Your task to perform on an android device: all mails in gmail Image 0: 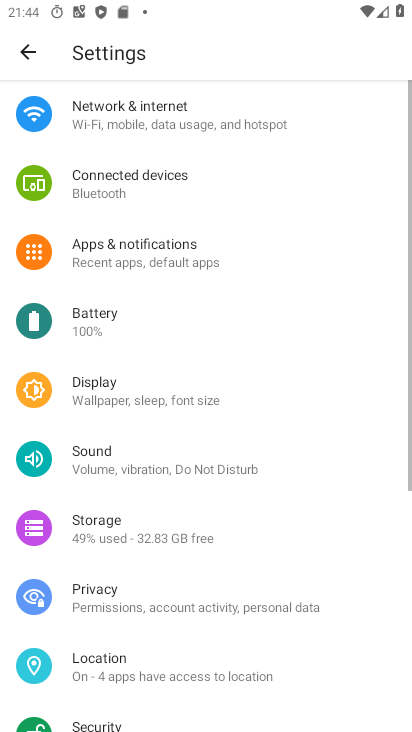
Step 0: press home button
Your task to perform on an android device: all mails in gmail Image 1: 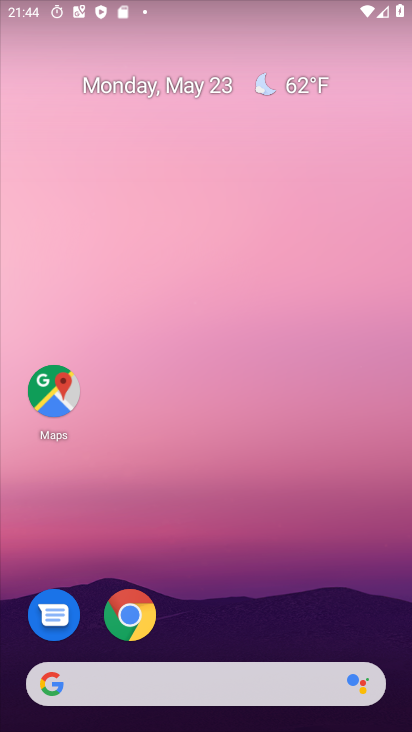
Step 1: drag from (252, 481) to (245, 69)
Your task to perform on an android device: all mails in gmail Image 2: 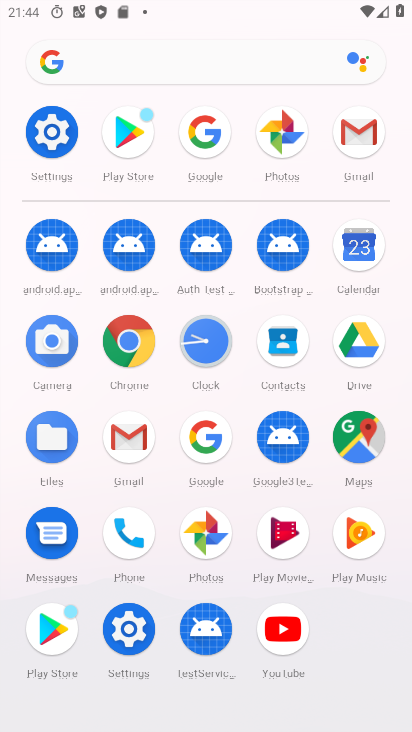
Step 2: click (359, 138)
Your task to perform on an android device: all mails in gmail Image 3: 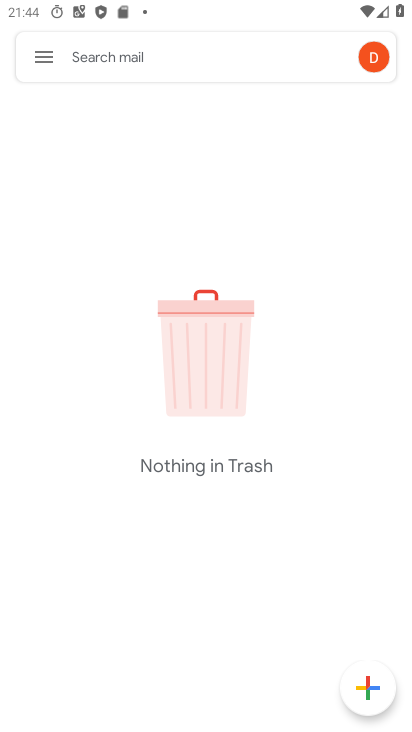
Step 3: click (41, 54)
Your task to perform on an android device: all mails in gmail Image 4: 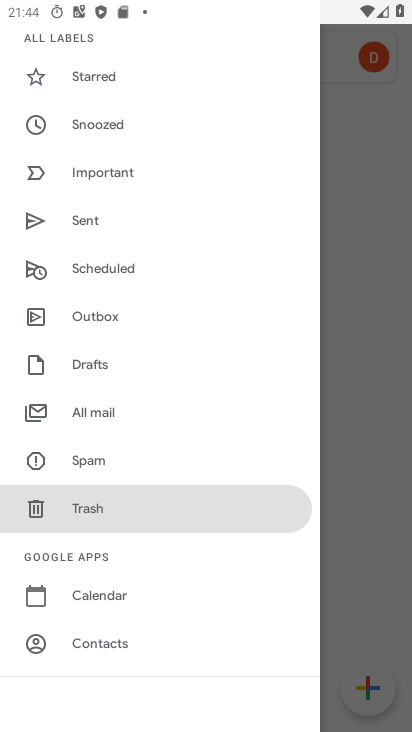
Step 4: click (107, 407)
Your task to perform on an android device: all mails in gmail Image 5: 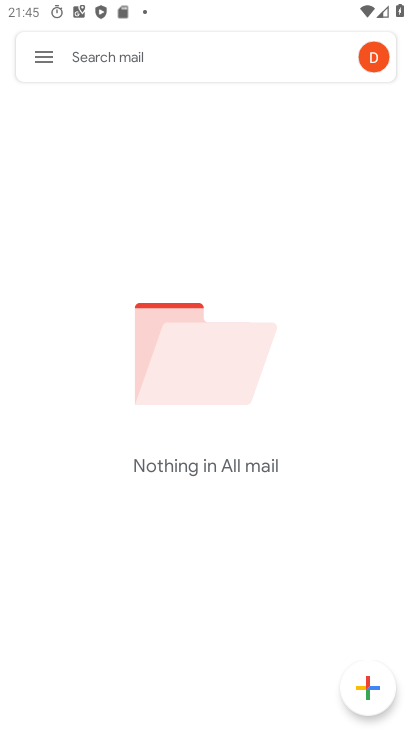
Step 5: task complete